Your task to perform on an android device: Is it going to rain today? Image 0: 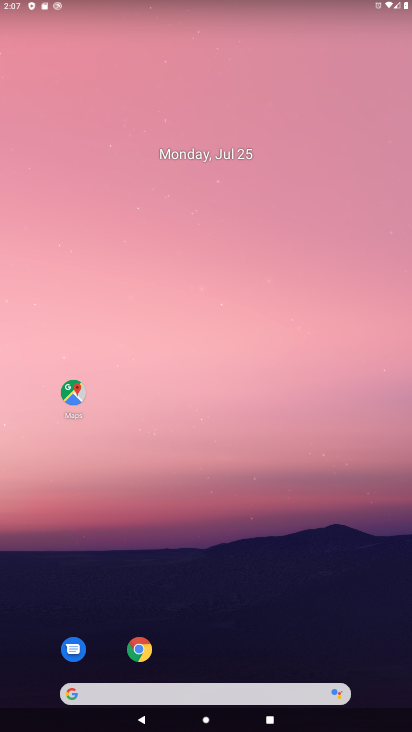
Step 0: drag from (4, 280) to (372, 313)
Your task to perform on an android device: Is it going to rain today? Image 1: 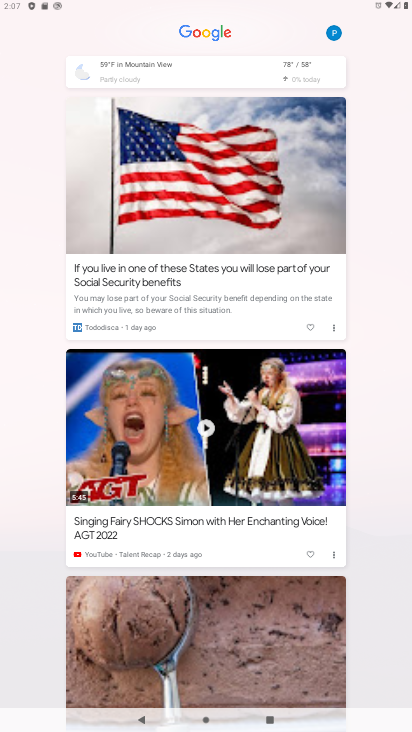
Step 1: click (263, 67)
Your task to perform on an android device: Is it going to rain today? Image 2: 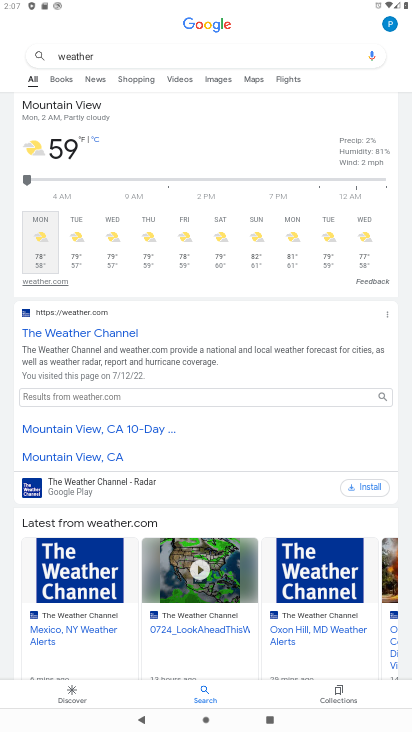
Step 2: task complete